Your task to perform on an android device: turn off location history Image 0: 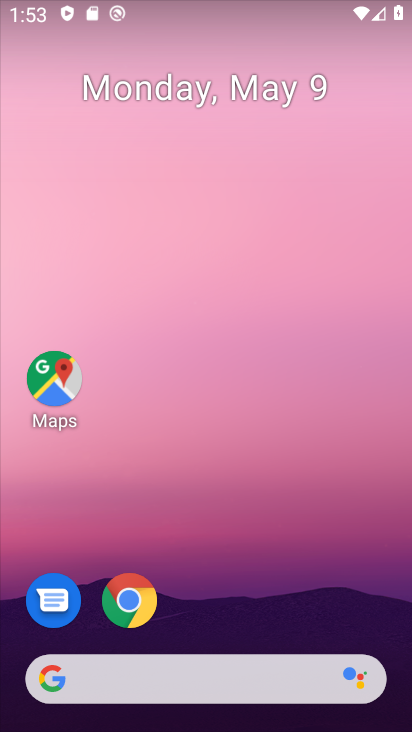
Step 0: drag from (300, 584) to (358, 13)
Your task to perform on an android device: turn off location history Image 1: 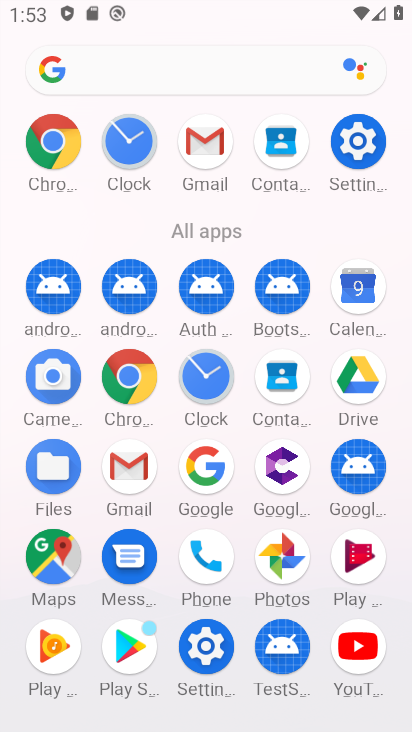
Step 1: click (199, 661)
Your task to perform on an android device: turn off location history Image 2: 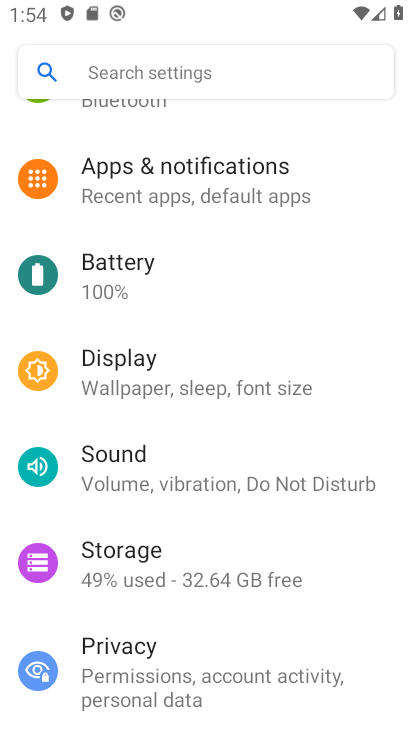
Step 2: drag from (227, 306) to (280, 173)
Your task to perform on an android device: turn off location history Image 3: 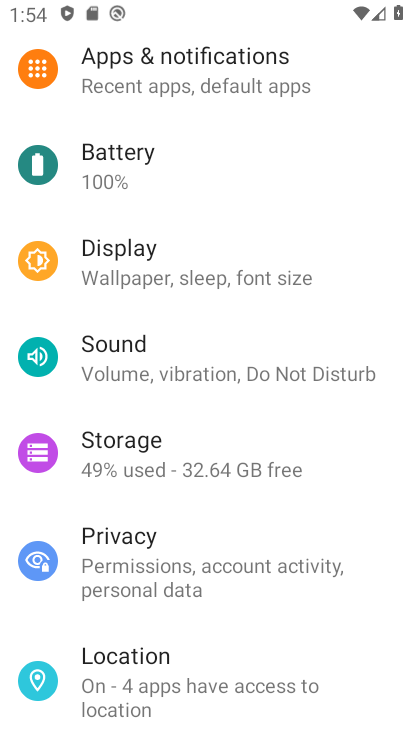
Step 3: click (234, 685)
Your task to perform on an android device: turn off location history Image 4: 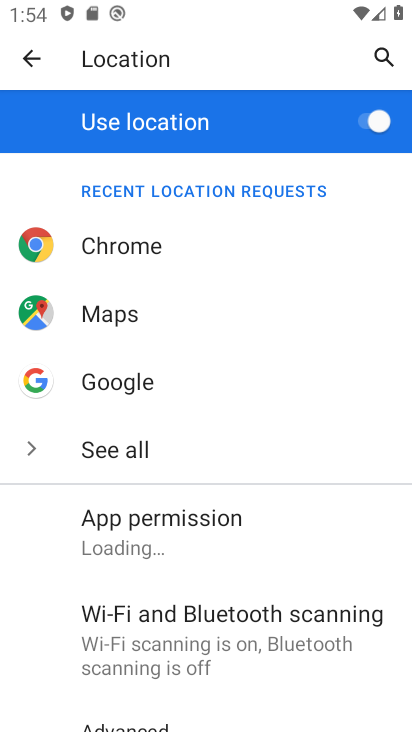
Step 4: drag from (189, 571) to (236, 334)
Your task to perform on an android device: turn off location history Image 5: 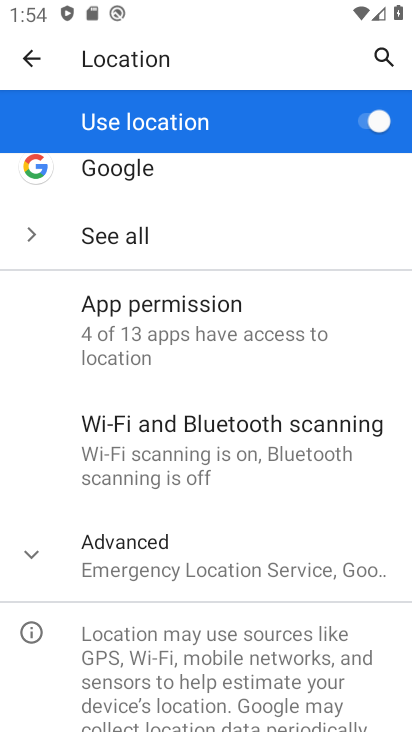
Step 5: click (250, 540)
Your task to perform on an android device: turn off location history Image 6: 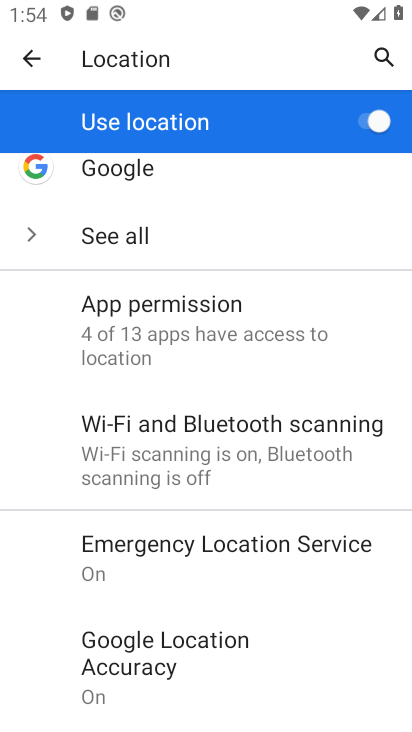
Step 6: drag from (250, 668) to (323, 402)
Your task to perform on an android device: turn off location history Image 7: 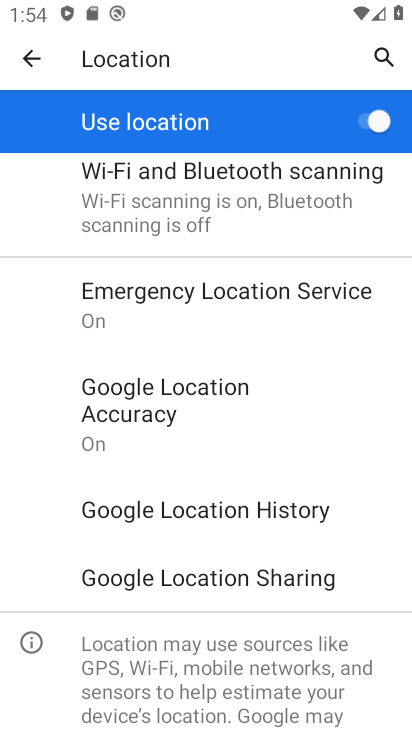
Step 7: click (307, 496)
Your task to perform on an android device: turn off location history Image 8: 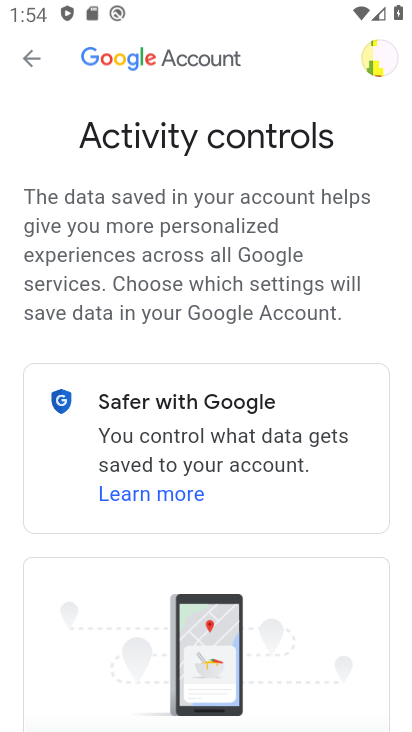
Step 8: drag from (299, 634) to (377, 365)
Your task to perform on an android device: turn off location history Image 9: 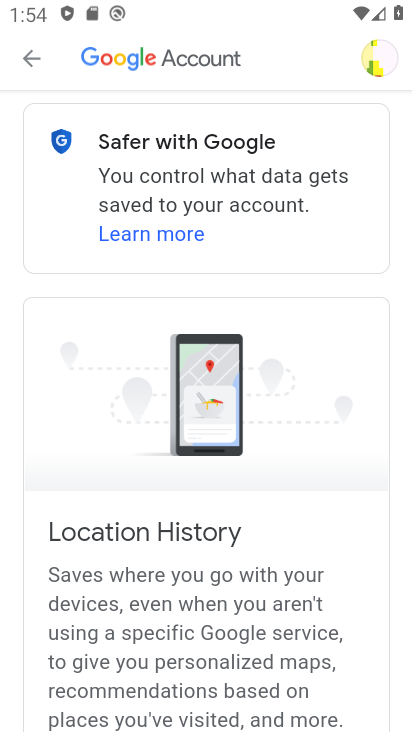
Step 9: drag from (387, 675) to (387, 419)
Your task to perform on an android device: turn off location history Image 10: 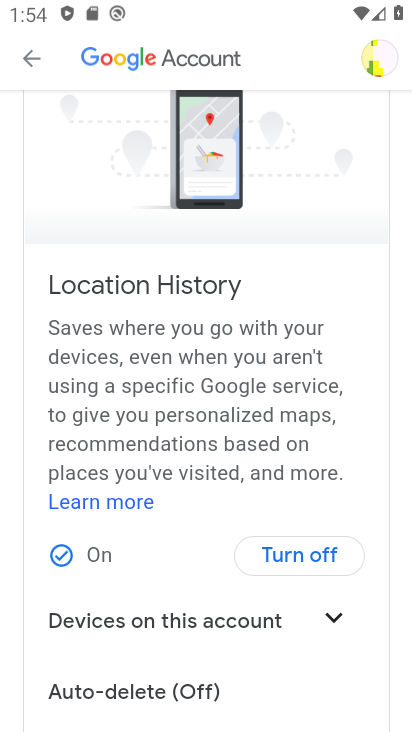
Step 10: click (318, 556)
Your task to perform on an android device: turn off location history Image 11: 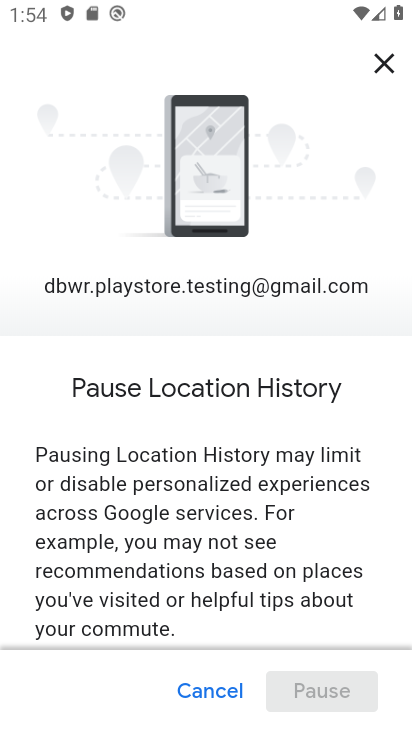
Step 11: drag from (323, 568) to (327, 231)
Your task to perform on an android device: turn off location history Image 12: 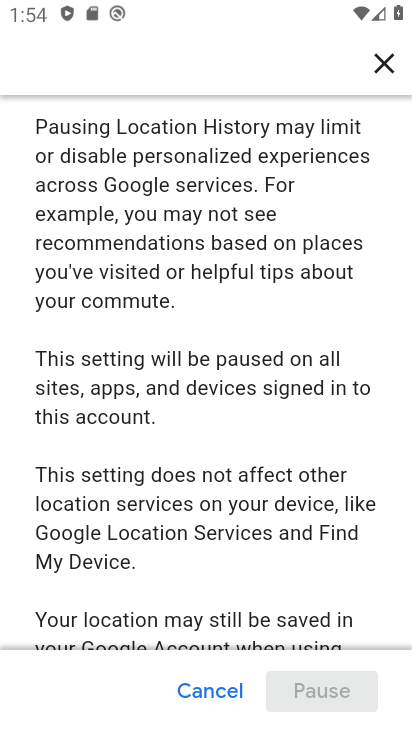
Step 12: drag from (300, 541) to (322, 226)
Your task to perform on an android device: turn off location history Image 13: 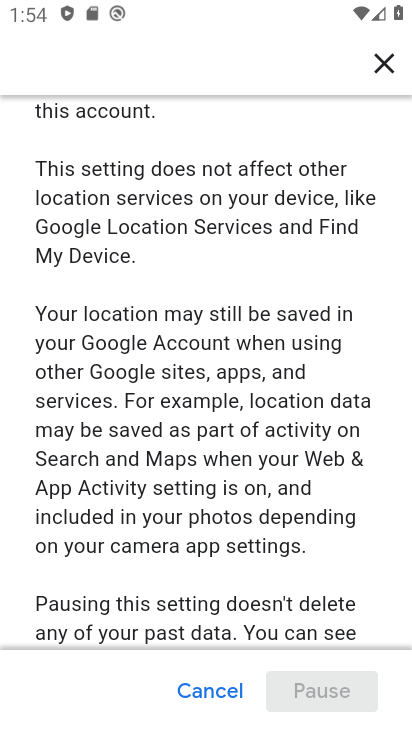
Step 13: drag from (276, 568) to (343, 300)
Your task to perform on an android device: turn off location history Image 14: 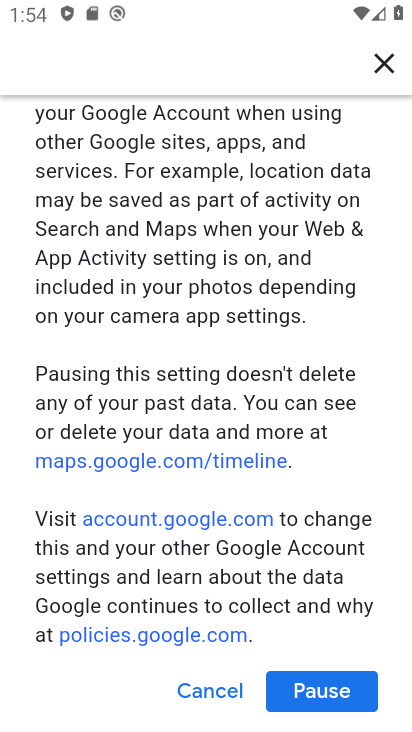
Step 14: click (301, 689)
Your task to perform on an android device: turn off location history Image 15: 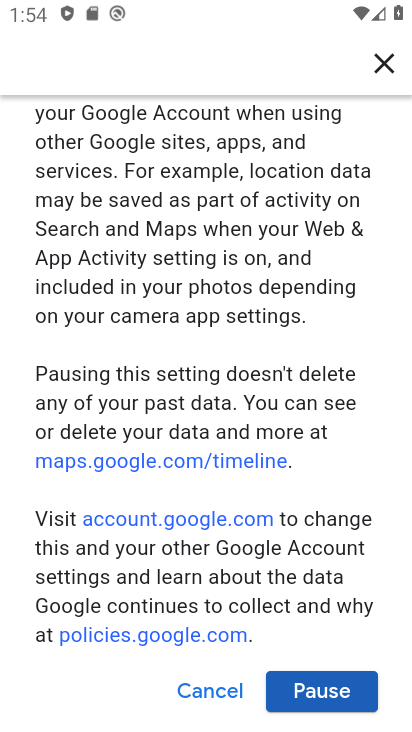
Step 15: click (301, 689)
Your task to perform on an android device: turn off location history Image 16: 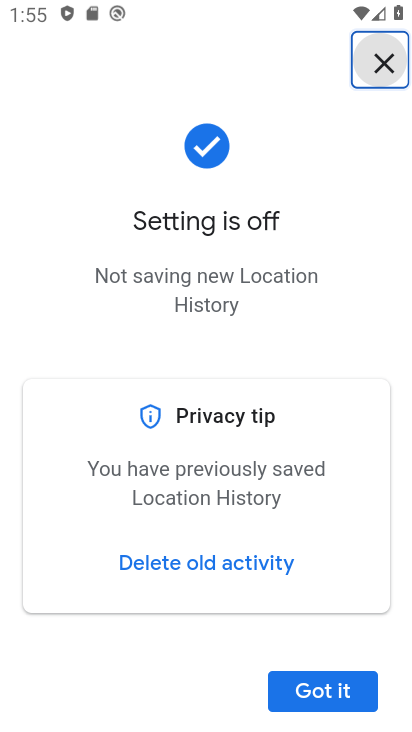
Step 16: click (306, 695)
Your task to perform on an android device: turn off location history Image 17: 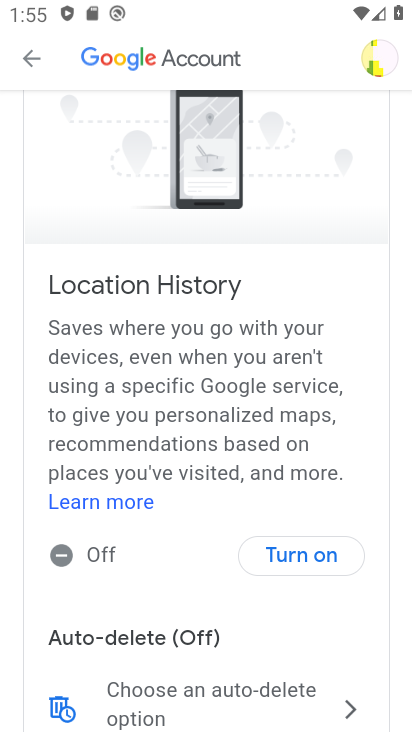
Step 17: task complete